Your task to perform on an android device: toggle wifi Image 0: 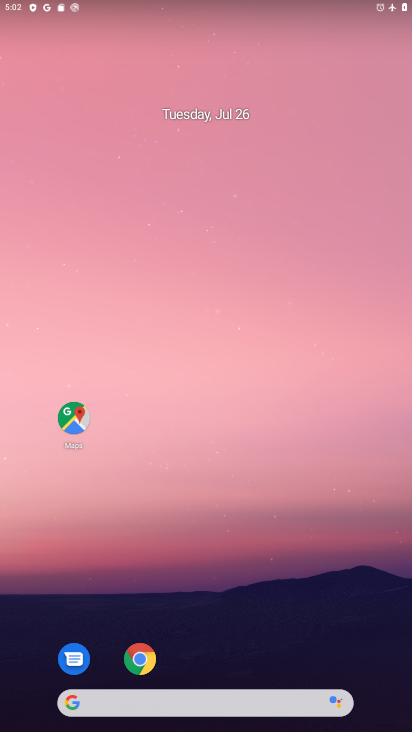
Step 0: press home button
Your task to perform on an android device: toggle wifi Image 1: 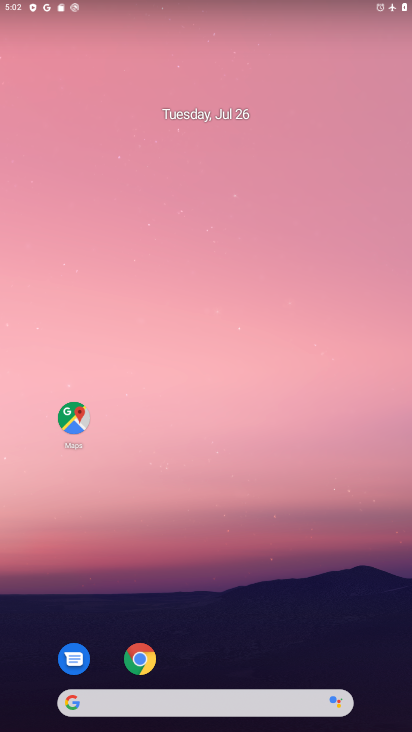
Step 1: drag from (227, 670) to (318, 6)
Your task to perform on an android device: toggle wifi Image 2: 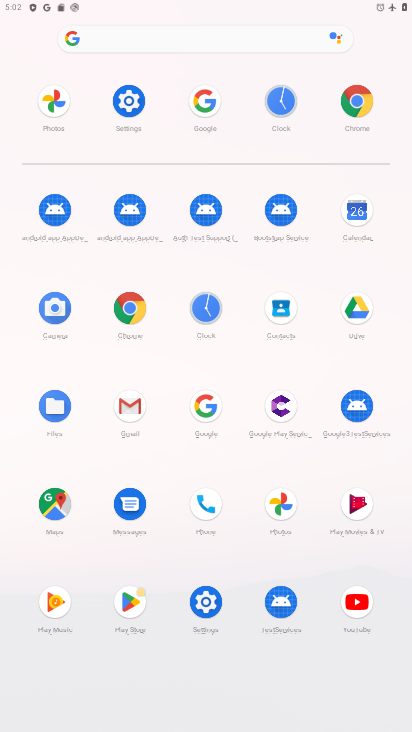
Step 2: click (125, 96)
Your task to perform on an android device: toggle wifi Image 3: 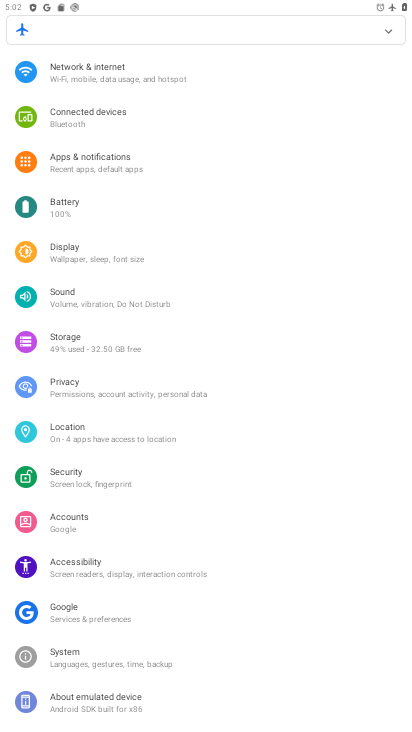
Step 3: click (133, 65)
Your task to perform on an android device: toggle wifi Image 4: 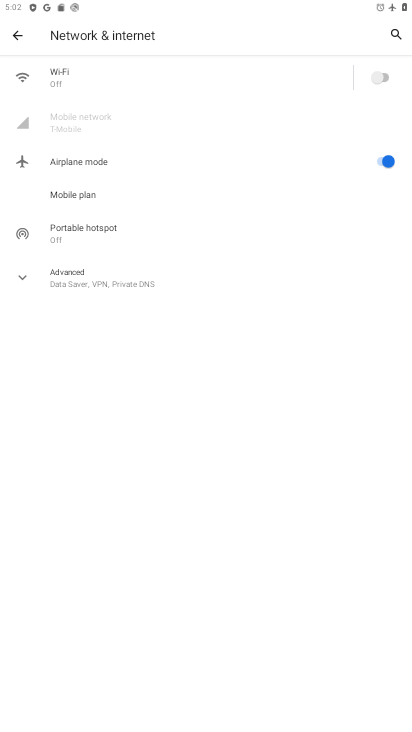
Step 4: click (378, 75)
Your task to perform on an android device: toggle wifi Image 5: 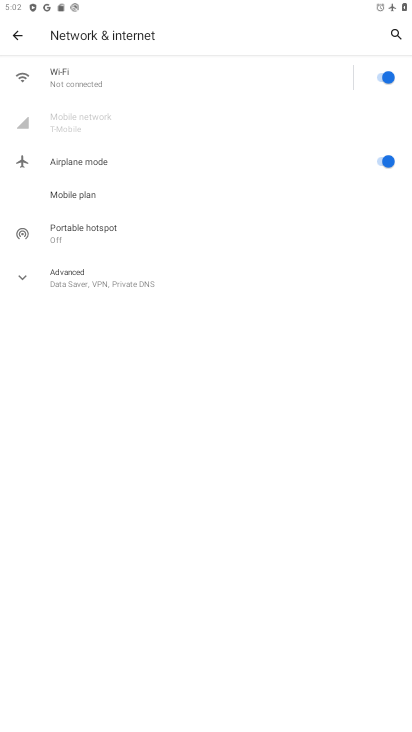
Step 5: task complete